Your task to perform on an android device: toggle translation in the chrome app Image 0: 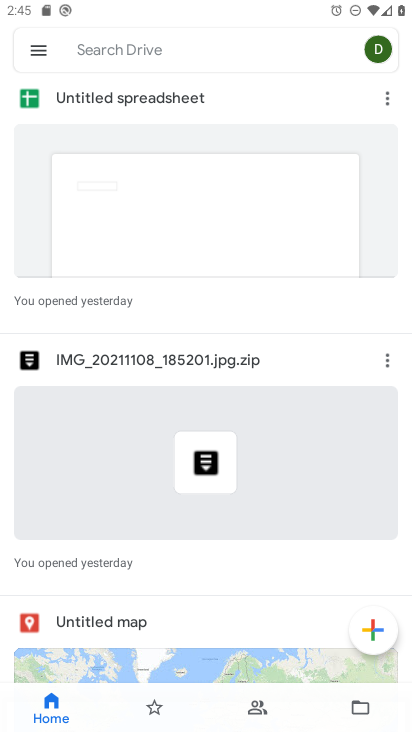
Step 0: press home button
Your task to perform on an android device: toggle translation in the chrome app Image 1: 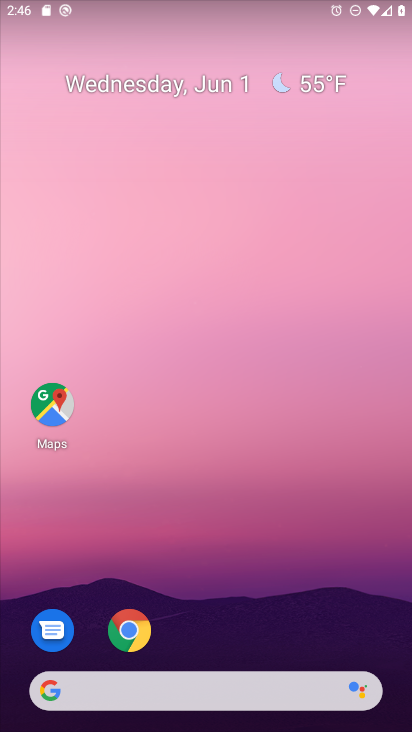
Step 1: drag from (330, 668) to (352, 2)
Your task to perform on an android device: toggle translation in the chrome app Image 2: 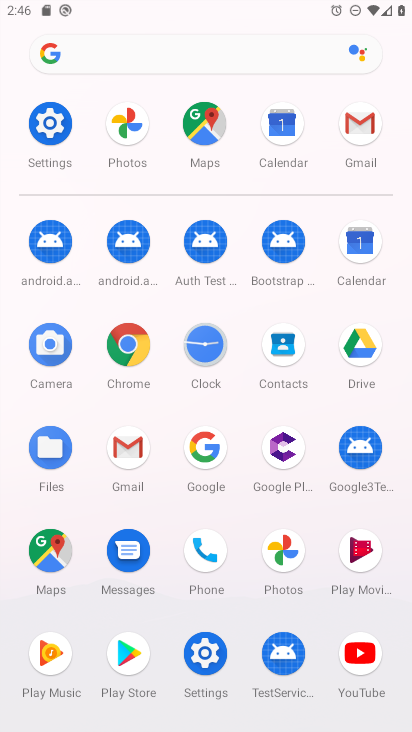
Step 2: click (131, 328)
Your task to perform on an android device: toggle translation in the chrome app Image 3: 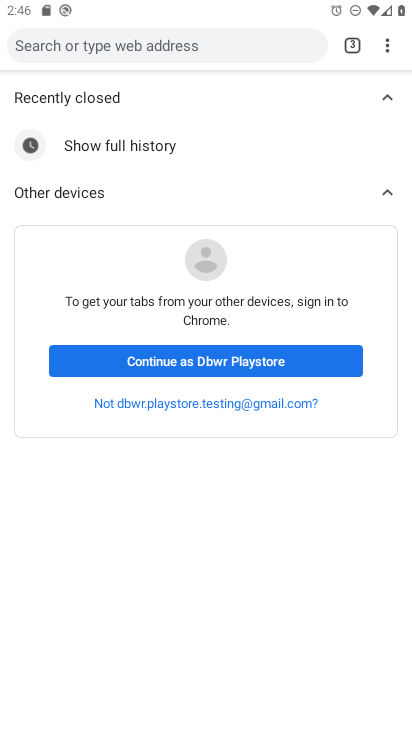
Step 3: drag from (383, 42) to (257, 383)
Your task to perform on an android device: toggle translation in the chrome app Image 4: 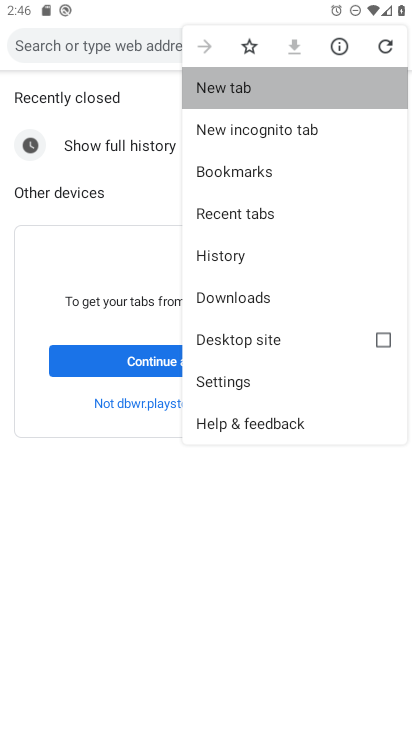
Step 4: click (247, 385)
Your task to perform on an android device: toggle translation in the chrome app Image 5: 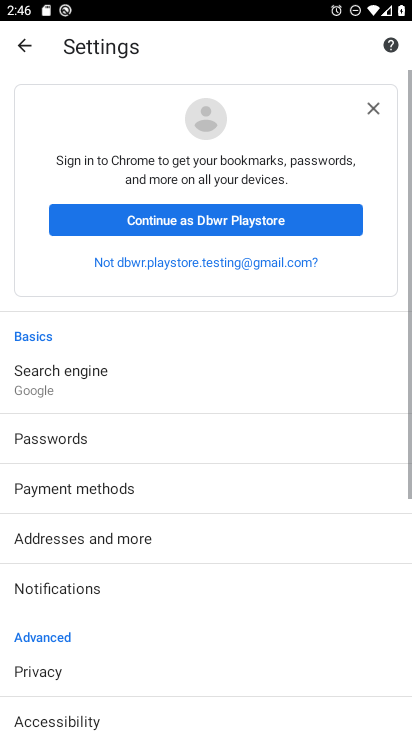
Step 5: drag from (113, 664) to (135, 191)
Your task to perform on an android device: toggle translation in the chrome app Image 6: 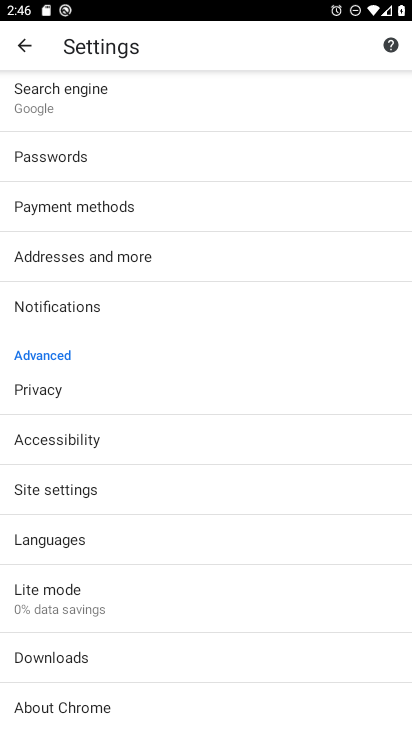
Step 6: click (106, 490)
Your task to perform on an android device: toggle translation in the chrome app Image 7: 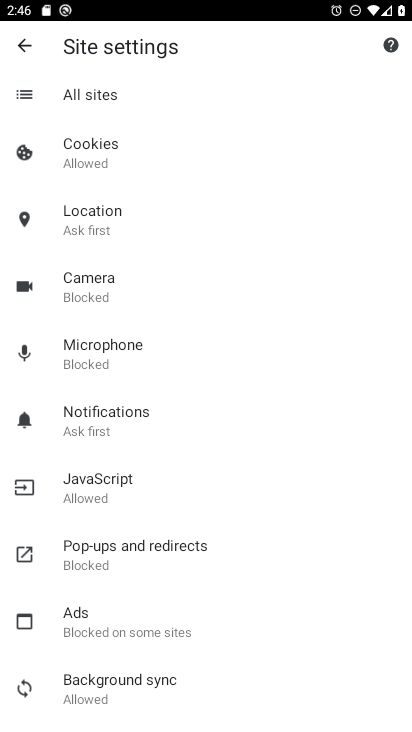
Step 7: drag from (137, 685) to (143, 267)
Your task to perform on an android device: toggle translation in the chrome app Image 8: 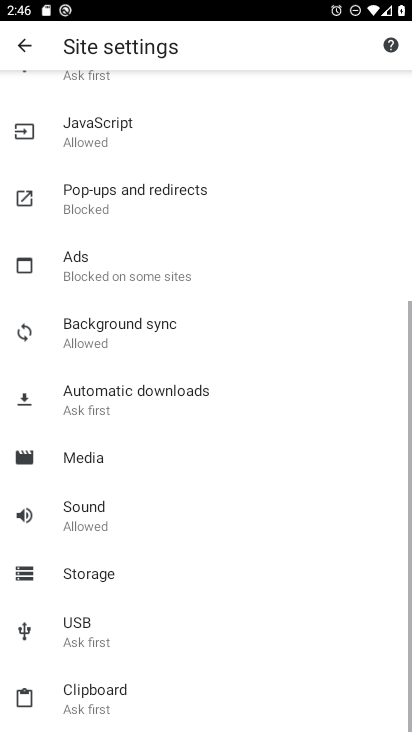
Step 8: drag from (148, 134) to (139, 578)
Your task to perform on an android device: toggle translation in the chrome app Image 9: 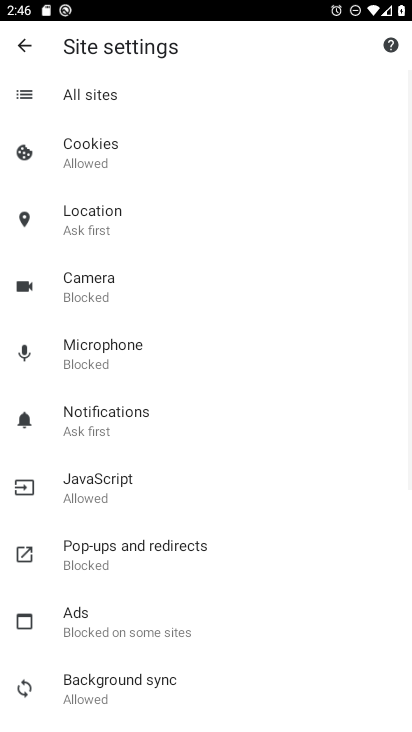
Step 9: drag from (121, 149) to (87, 429)
Your task to perform on an android device: toggle translation in the chrome app Image 10: 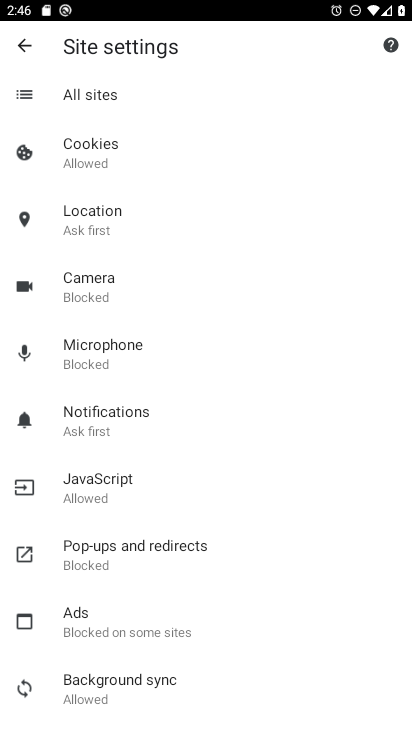
Step 10: press back button
Your task to perform on an android device: toggle translation in the chrome app Image 11: 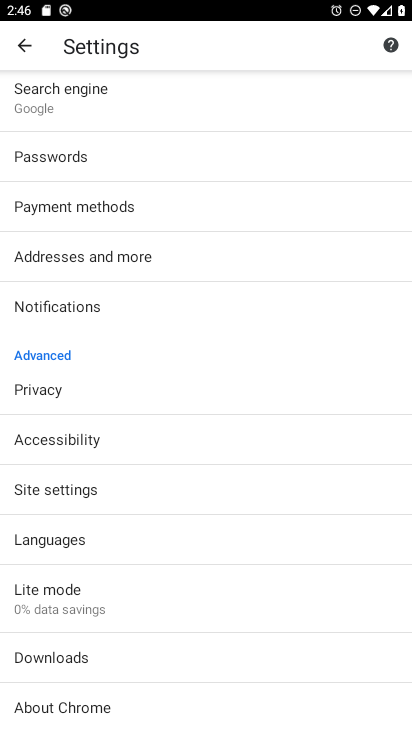
Step 11: click (100, 546)
Your task to perform on an android device: toggle translation in the chrome app Image 12: 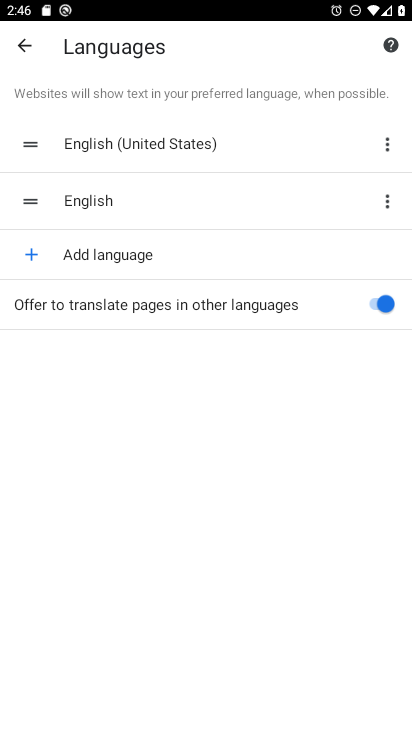
Step 12: click (375, 302)
Your task to perform on an android device: toggle translation in the chrome app Image 13: 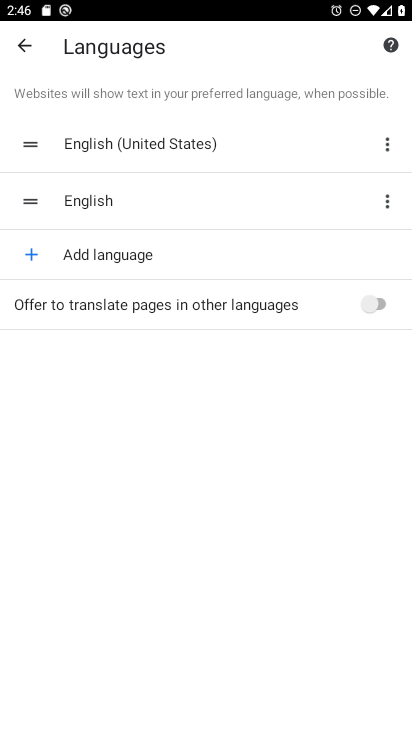
Step 13: task complete